Your task to perform on an android device: open app "Google Sheets" Image 0: 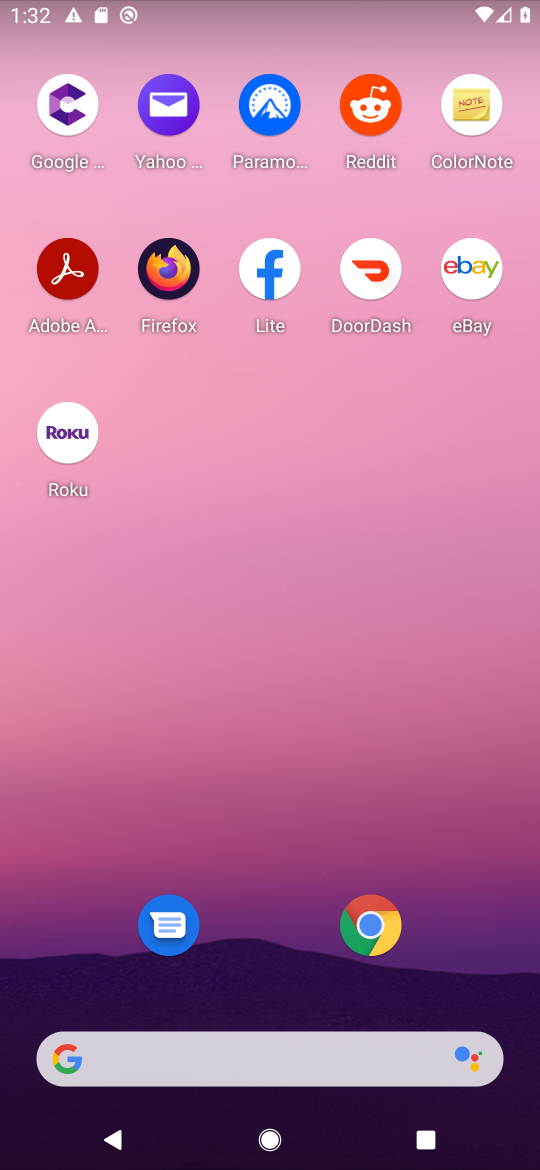
Step 0: drag from (303, 955) to (318, 24)
Your task to perform on an android device: open app "Google Sheets" Image 1: 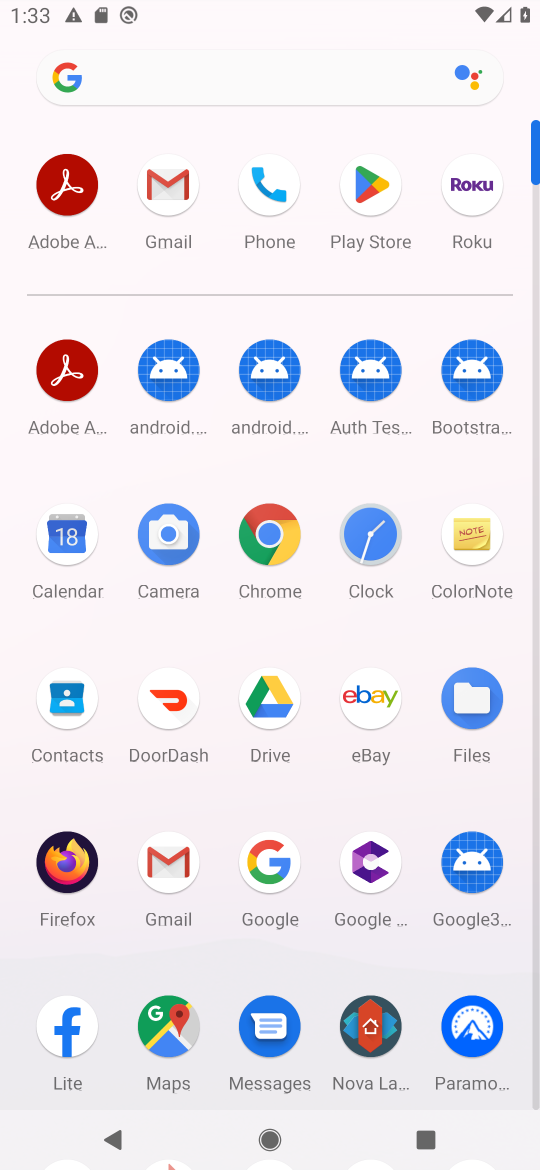
Step 1: click (380, 231)
Your task to perform on an android device: open app "Google Sheets" Image 2: 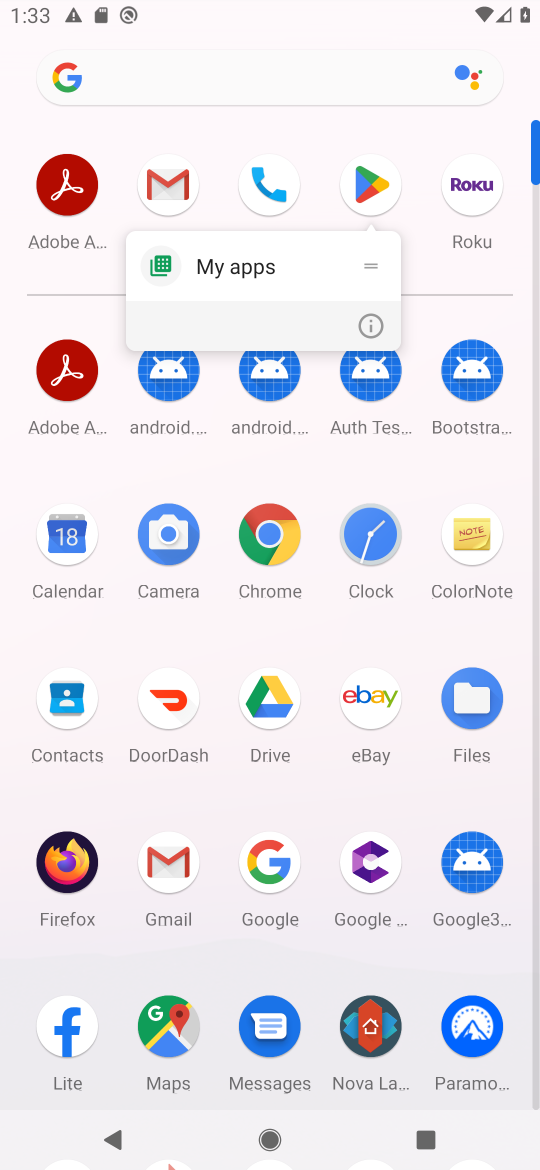
Step 2: click (383, 194)
Your task to perform on an android device: open app "Google Sheets" Image 3: 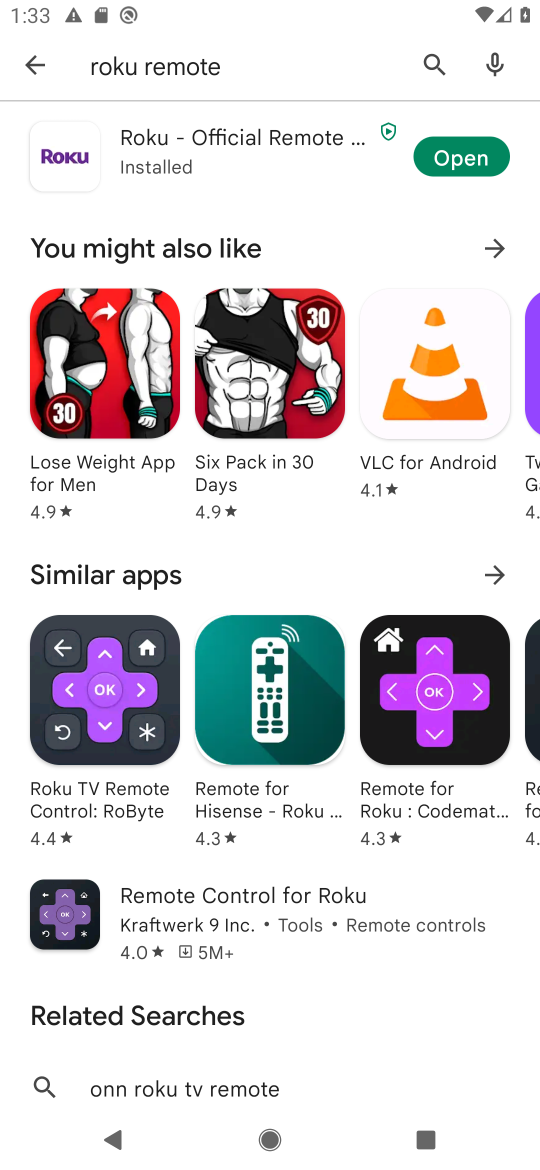
Step 3: click (32, 54)
Your task to perform on an android device: open app "Google Sheets" Image 4: 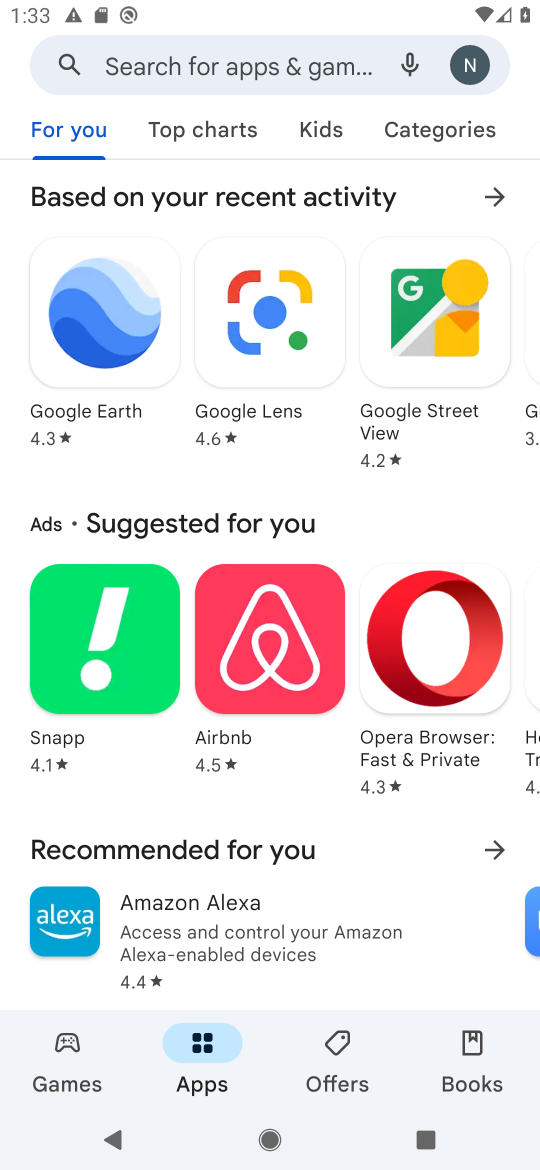
Step 4: click (177, 70)
Your task to perform on an android device: open app "Google Sheets" Image 5: 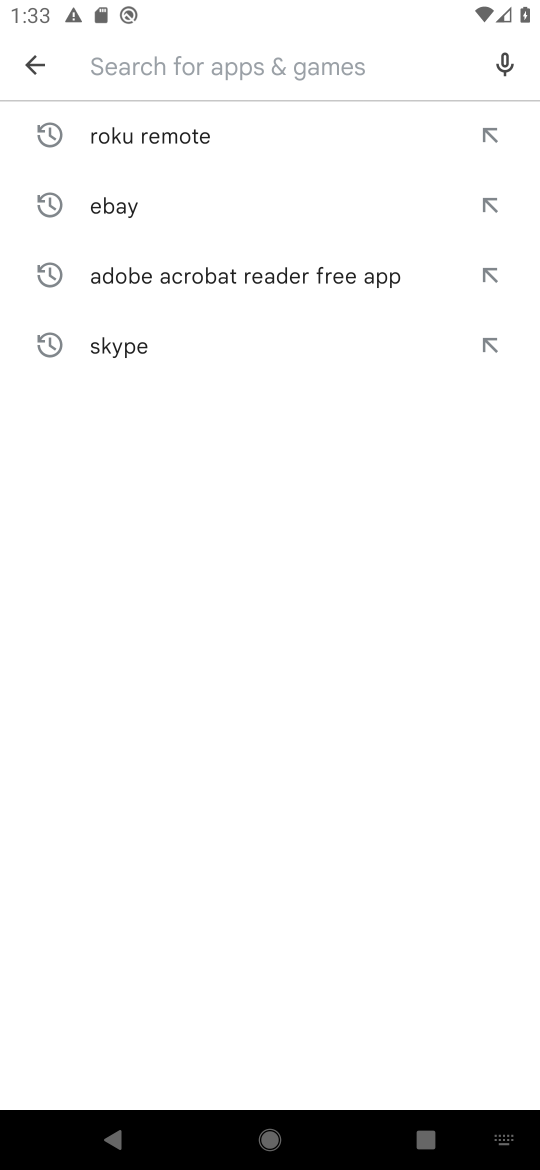
Step 5: type "Google Sheets"
Your task to perform on an android device: open app "Google Sheets" Image 6: 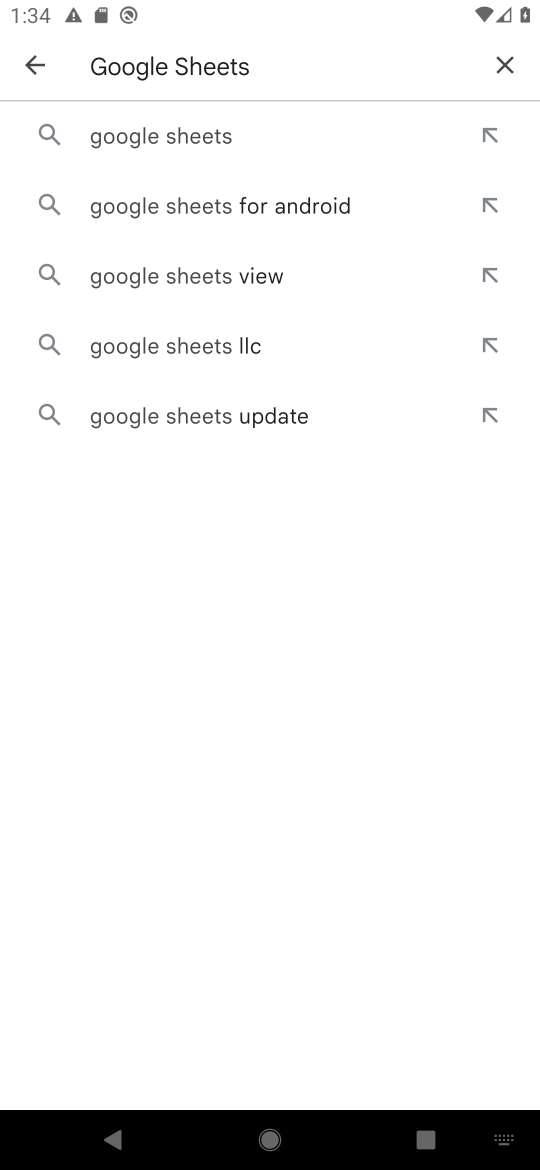
Step 6: click (190, 138)
Your task to perform on an android device: open app "Google Sheets" Image 7: 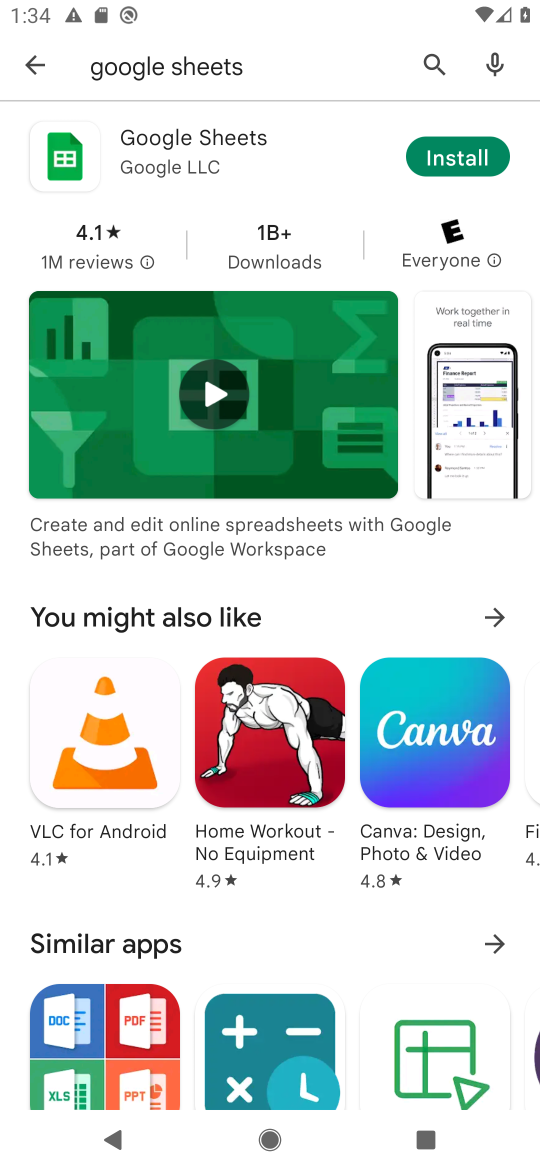
Step 7: click (445, 156)
Your task to perform on an android device: open app "Google Sheets" Image 8: 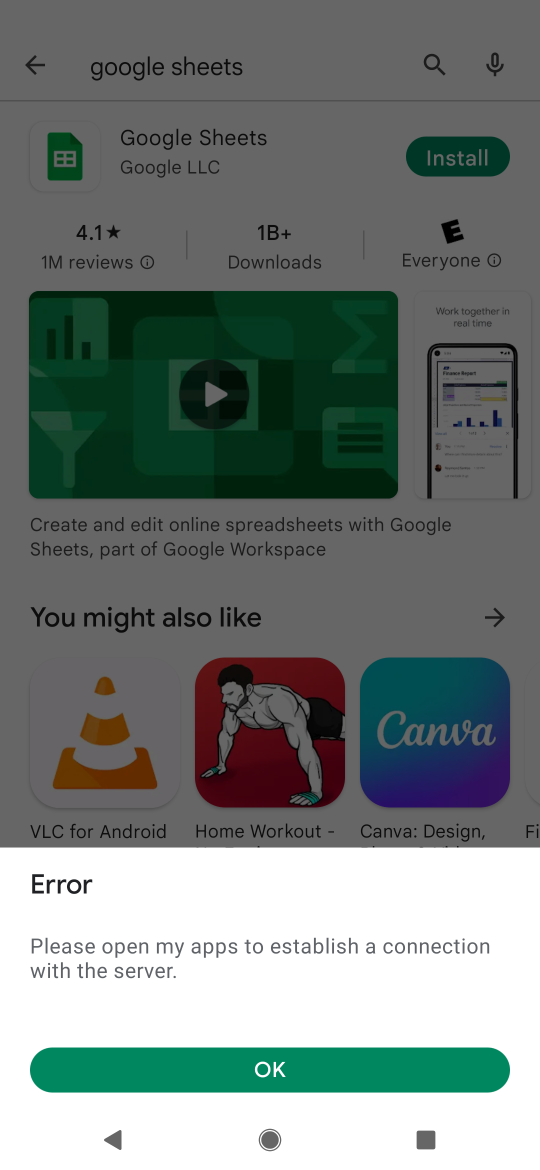
Step 8: click (241, 1059)
Your task to perform on an android device: open app "Google Sheets" Image 9: 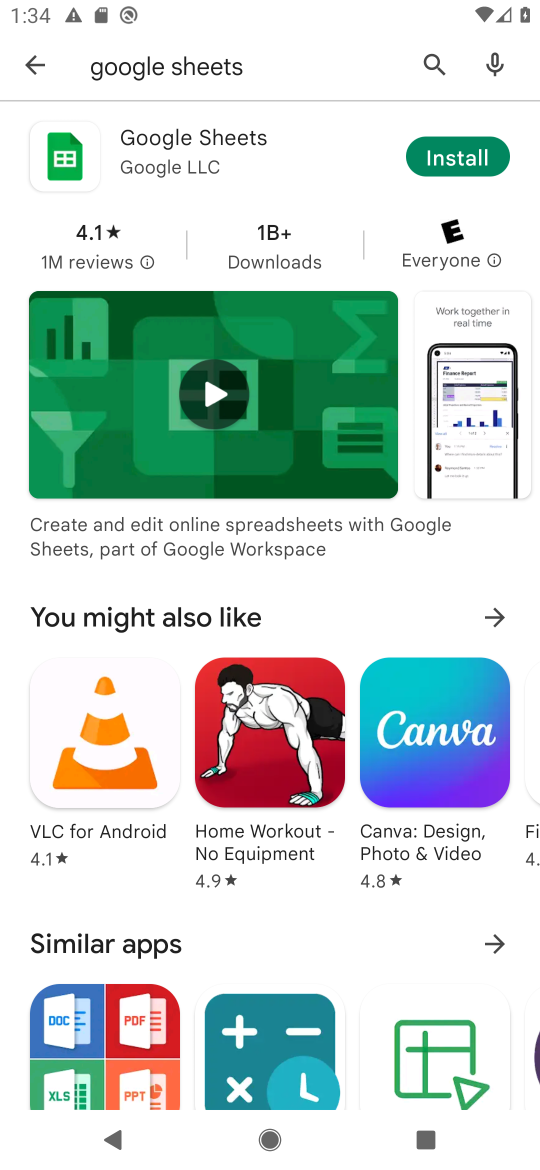
Step 9: task complete